Your task to perform on an android device: Go to settings Image 0: 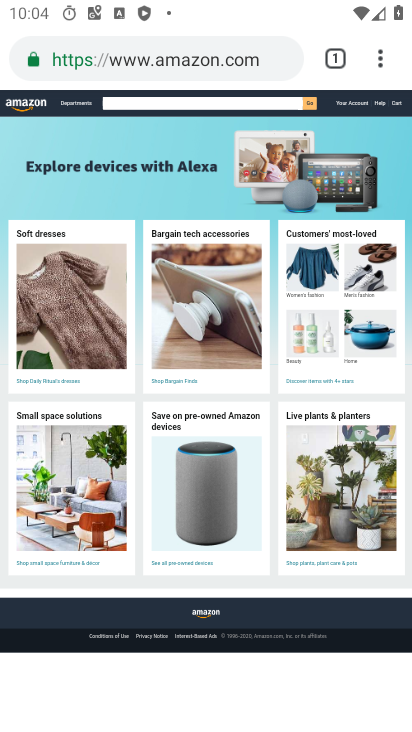
Step 0: press home button
Your task to perform on an android device: Go to settings Image 1: 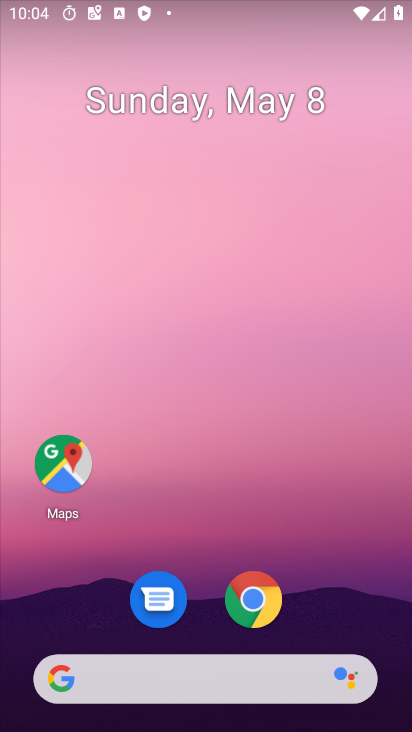
Step 1: drag from (248, 647) to (229, 13)
Your task to perform on an android device: Go to settings Image 2: 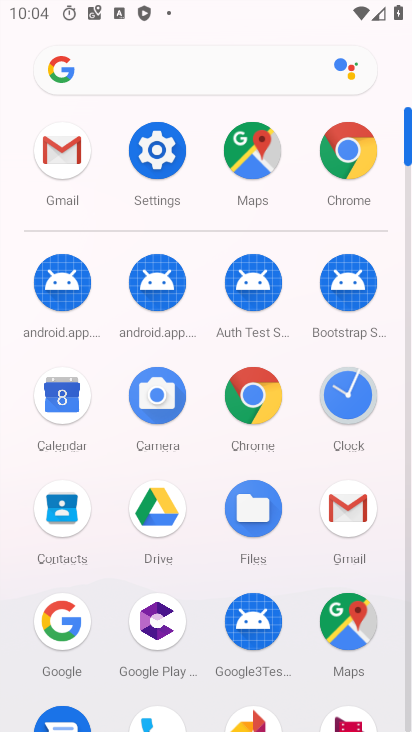
Step 2: click (162, 151)
Your task to perform on an android device: Go to settings Image 3: 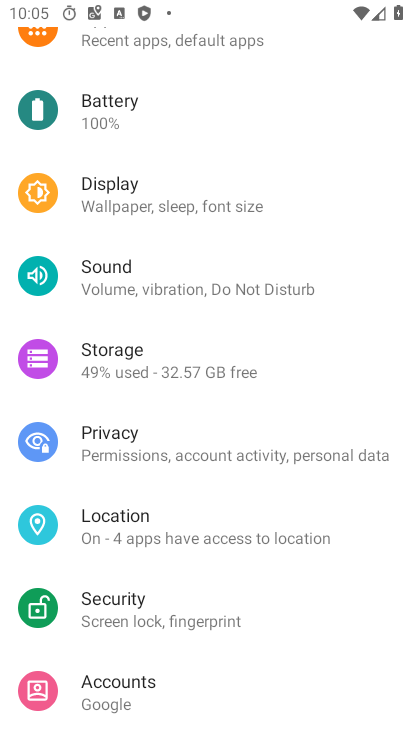
Step 3: task complete